Your task to perform on an android device: open app "PUBG MOBILE" (install if not already installed) and enter user name: "phenomenologically@gmail.com" and password: "artillery" Image 0: 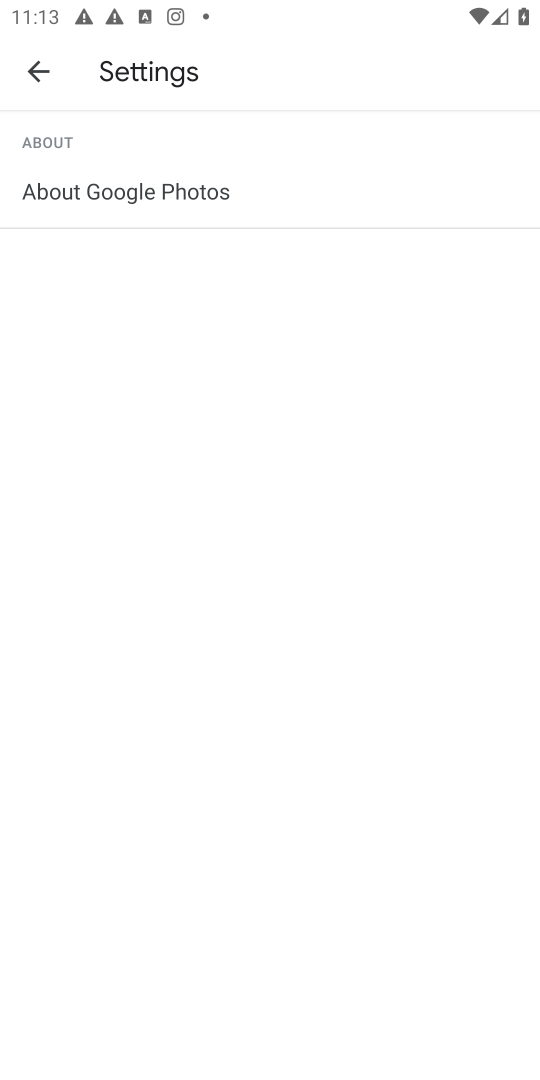
Step 0: press home button
Your task to perform on an android device: open app "PUBG MOBILE" (install if not already installed) and enter user name: "phenomenologically@gmail.com" and password: "artillery" Image 1: 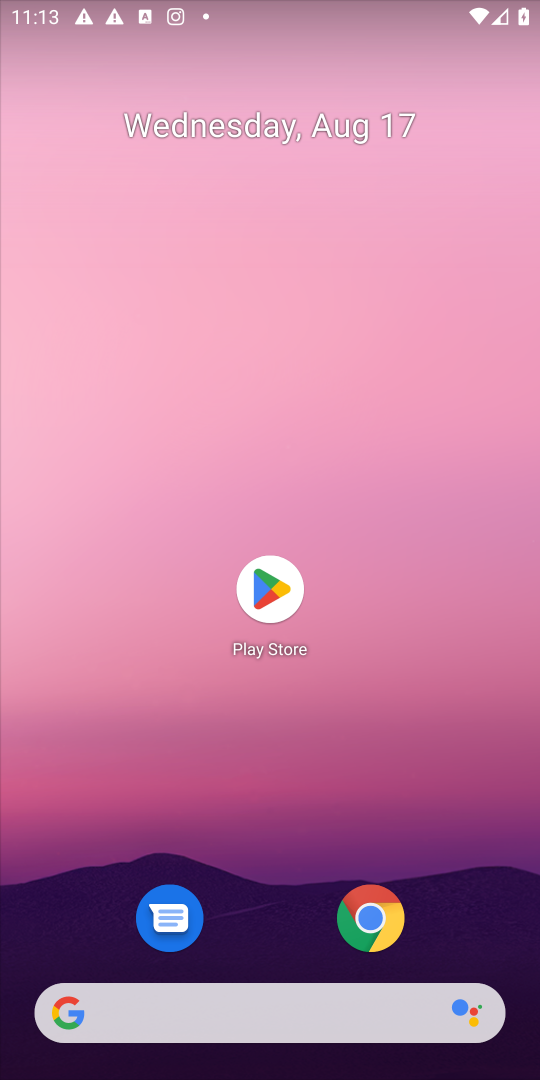
Step 1: click (263, 577)
Your task to perform on an android device: open app "PUBG MOBILE" (install if not already installed) and enter user name: "phenomenologically@gmail.com" and password: "artillery" Image 2: 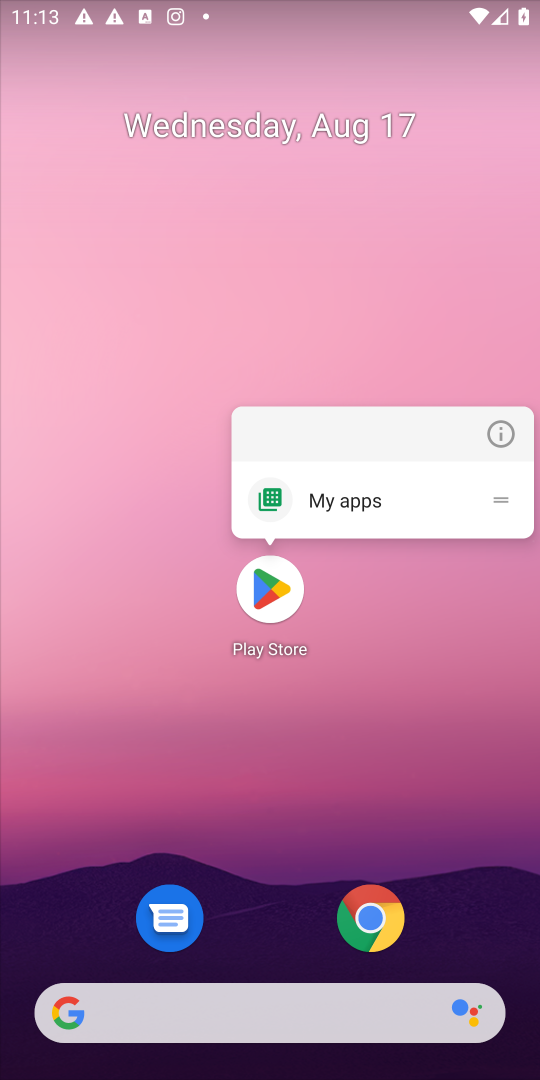
Step 2: click (272, 589)
Your task to perform on an android device: open app "PUBG MOBILE" (install if not already installed) and enter user name: "phenomenologically@gmail.com" and password: "artillery" Image 3: 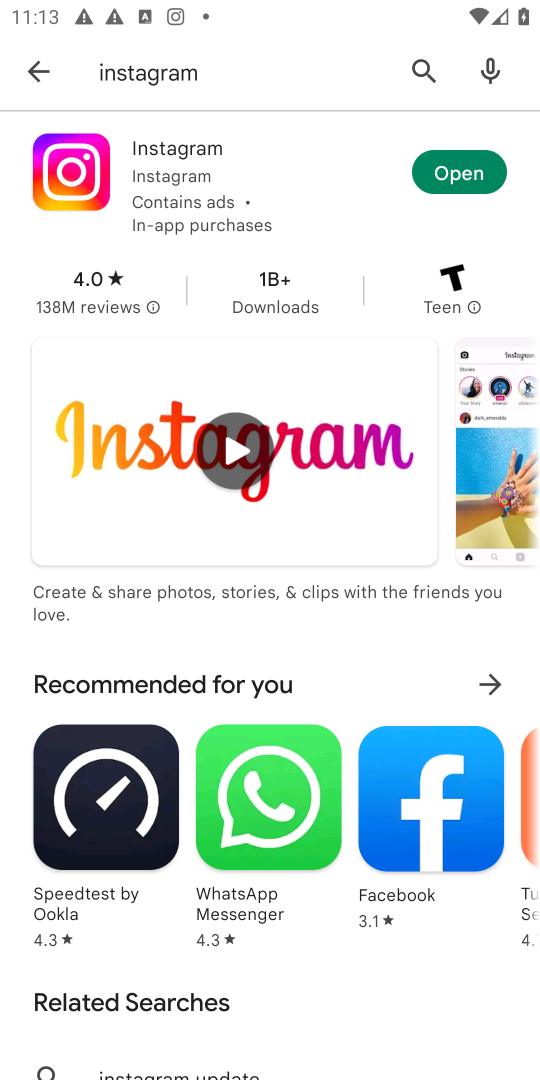
Step 3: click (421, 65)
Your task to perform on an android device: open app "PUBG MOBILE" (install if not already installed) and enter user name: "phenomenologically@gmail.com" and password: "artillery" Image 4: 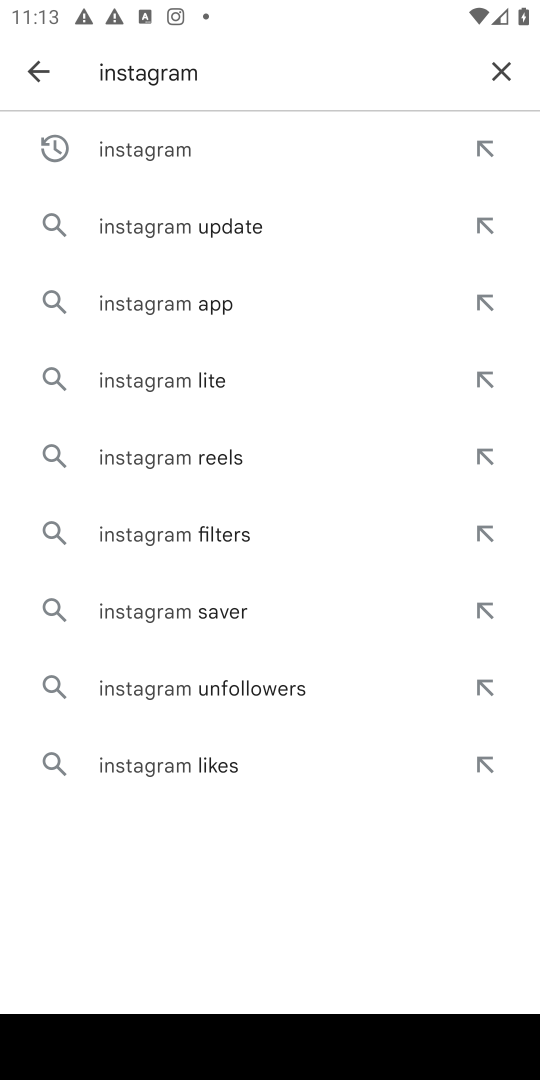
Step 4: click (495, 71)
Your task to perform on an android device: open app "PUBG MOBILE" (install if not already installed) and enter user name: "phenomenologically@gmail.com" and password: "artillery" Image 5: 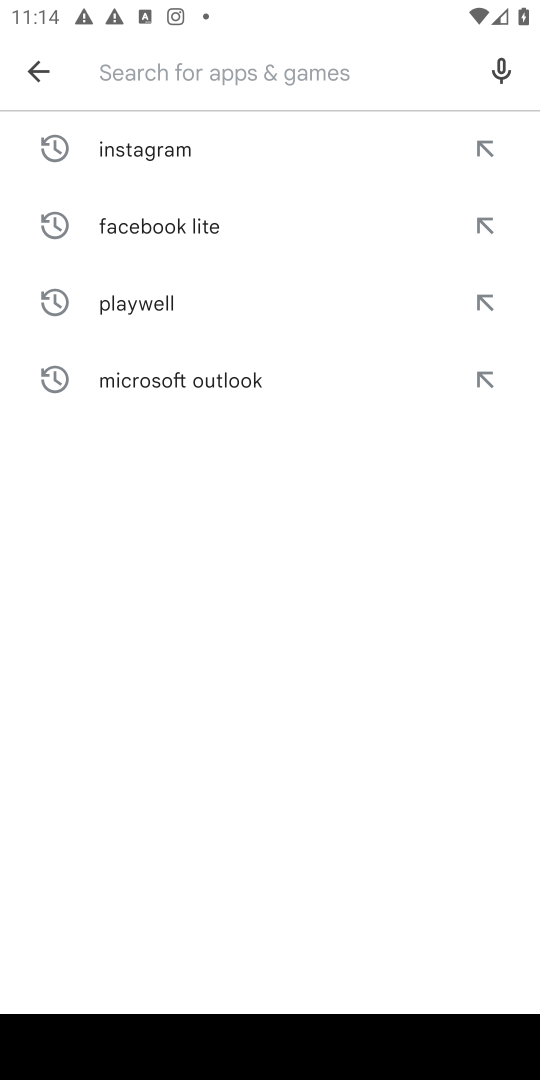
Step 5: type "PUBG MOBILE"
Your task to perform on an android device: open app "PUBG MOBILE" (install if not already installed) and enter user name: "phenomenologically@gmail.com" and password: "artillery" Image 6: 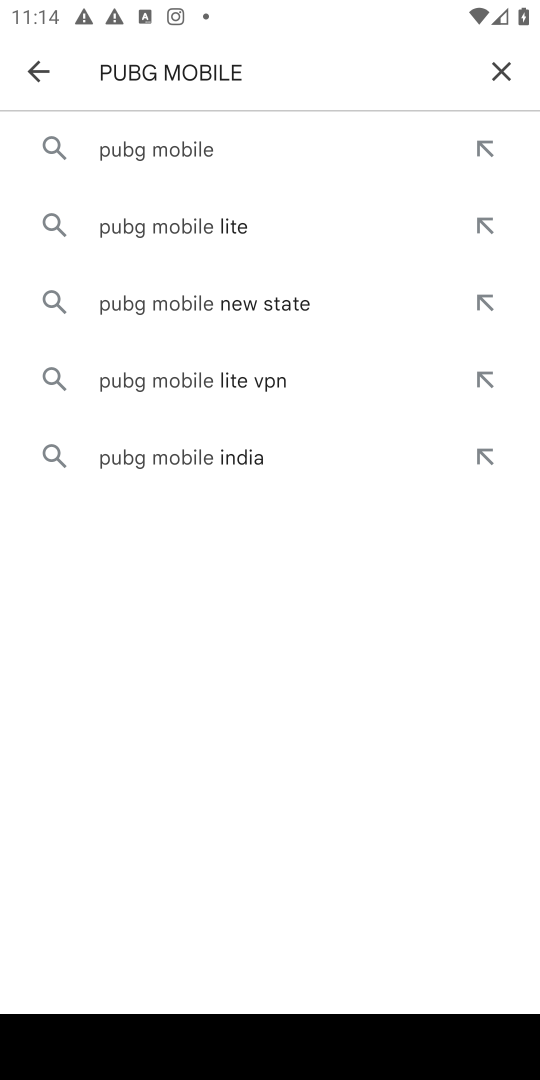
Step 6: click (179, 152)
Your task to perform on an android device: open app "PUBG MOBILE" (install if not already installed) and enter user name: "phenomenologically@gmail.com" and password: "artillery" Image 7: 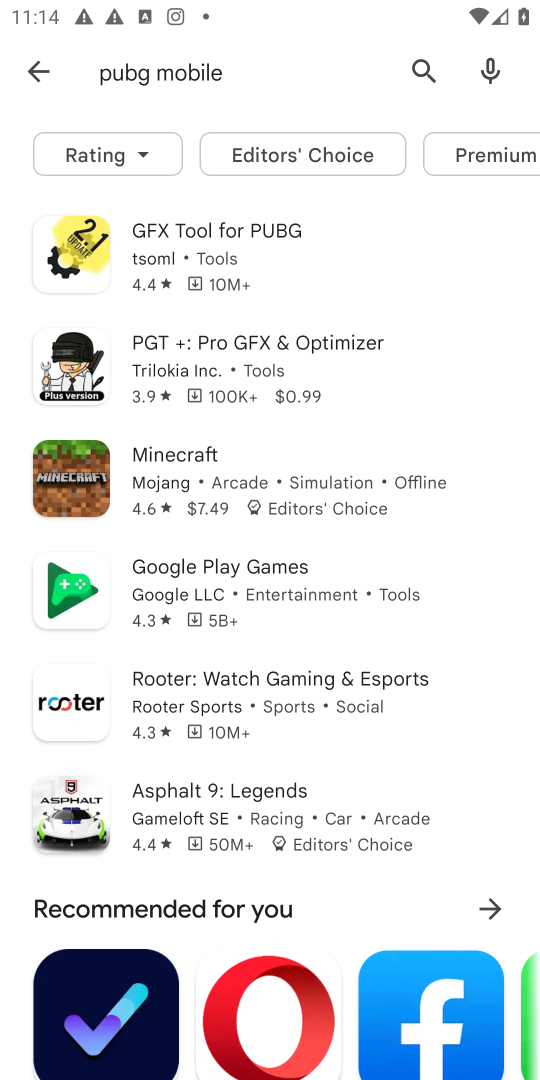
Step 7: task complete